Your task to perform on an android device: check android version Image 0: 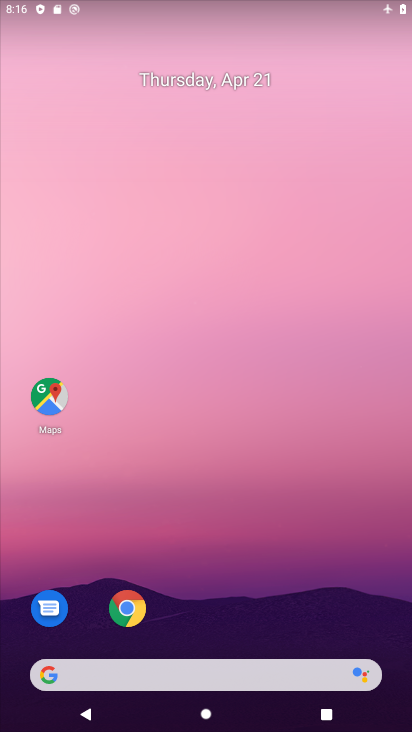
Step 0: drag from (224, 598) to (222, 110)
Your task to perform on an android device: check android version Image 1: 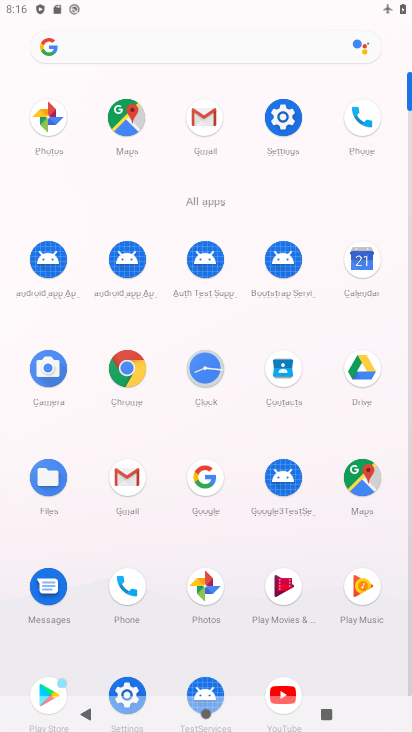
Step 1: click (280, 128)
Your task to perform on an android device: check android version Image 2: 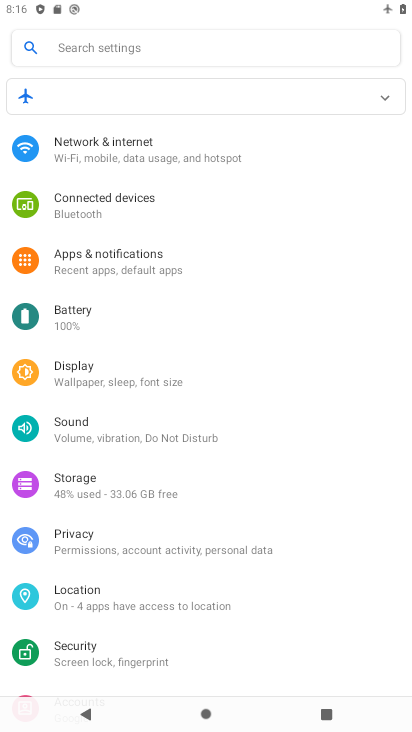
Step 2: drag from (248, 622) to (269, 62)
Your task to perform on an android device: check android version Image 3: 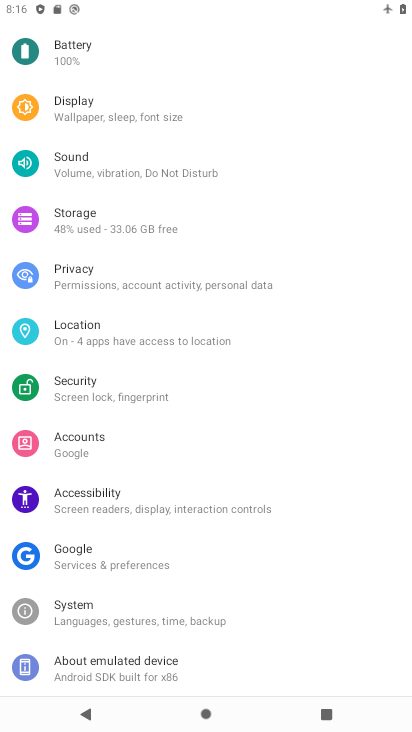
Step 3: click (132, 671)
Your task to perform on an android device: check android version Image 4: 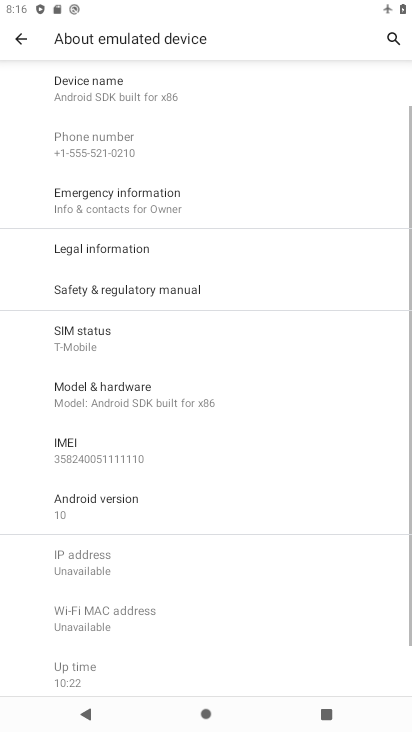
Step 4: drag from (194, 519) to (246, 185)
Your task to perform on an android device: check android version Image 5: 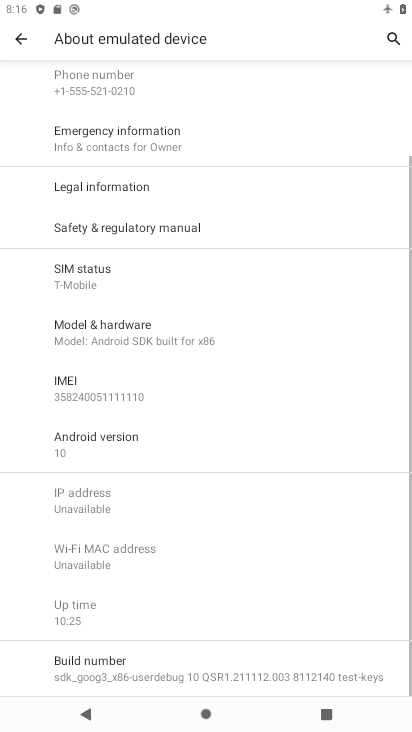
Step 5: click (108, 445)
Your task to perform on an android device: check android version Image 6: 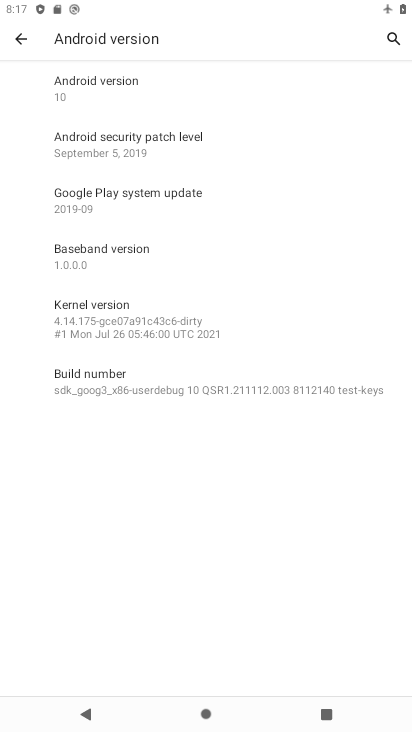
Step 6: task complete